Your task to perform on an android device: open app "VLC for Android" Image 0: 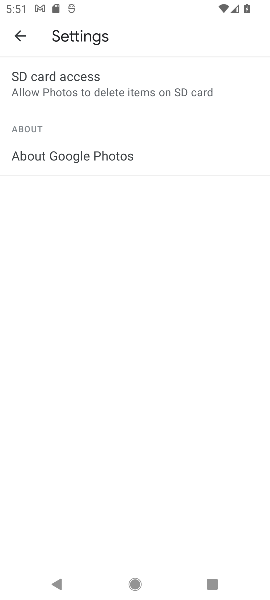
Step 0: press home button
Your task to perform on an android device: open app "VLC for Android" Image 1: 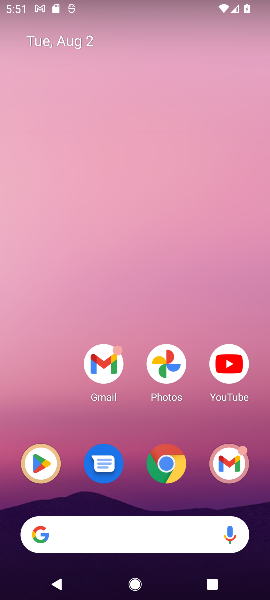
Step 1: click (45, 455)
Your task to perform on an android device: open app "VLC for Android" Image 2: 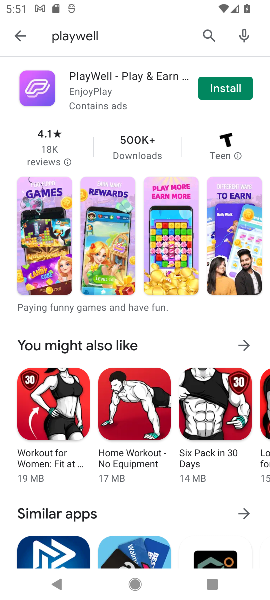
Step 2: click (210, 31)
Your task to perform on an android device: open app "VLC for Android" Image 3: 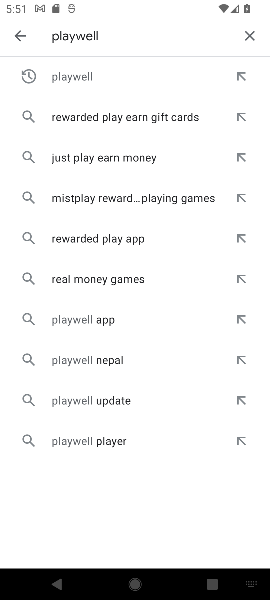
Step 3: click (254, 33)
Your task to perform on an android device: open app "VLC for Android" Image 4: 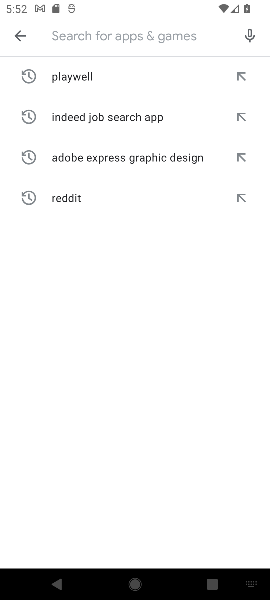
Step 4: type "VLC for Android"
Your task to perform on an android device: open app "VLC for Android" Image 5: 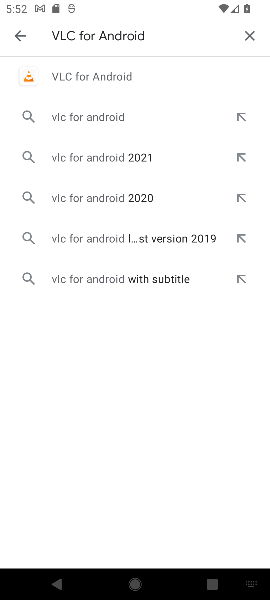
Step 5: click (125, 74)
Your task to perform on an android device: open app "VLC for Android" Image 6: 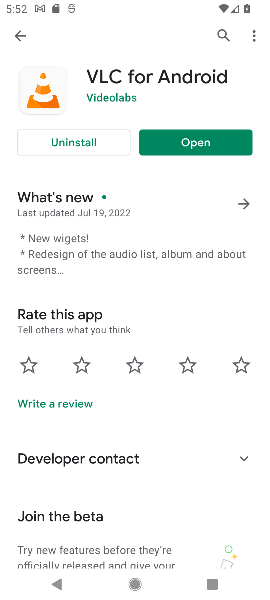
Step 6: click (194, 139)
Your task to perform on an android device: open app "VLC for Android" Image 7: 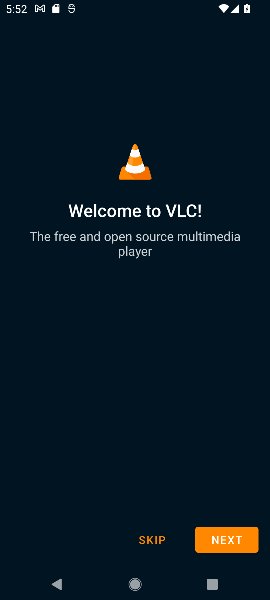
Step 7: task complete